Your task to perform on an android device: set the timer Image 0: 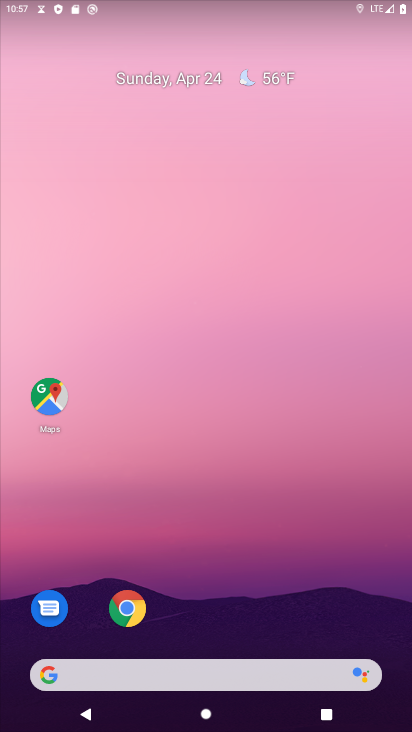
Step 0: drag from (202, 405) to (200, 79)
Your task to perform on an android device: set the timer Image 1: 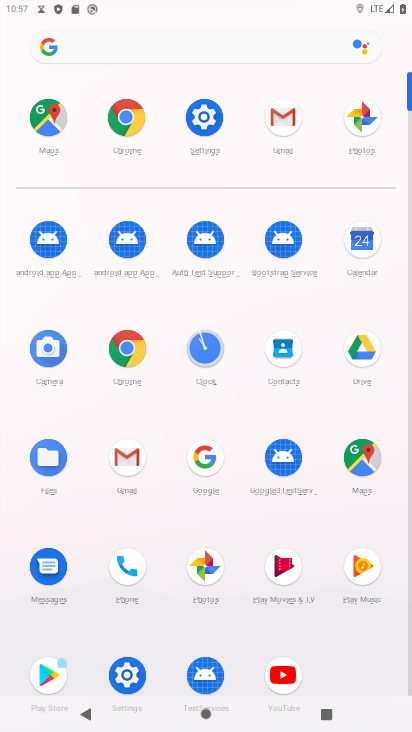
Step 1: click (205, 355)
Your task to perform on an android device: set the timer Image 2: 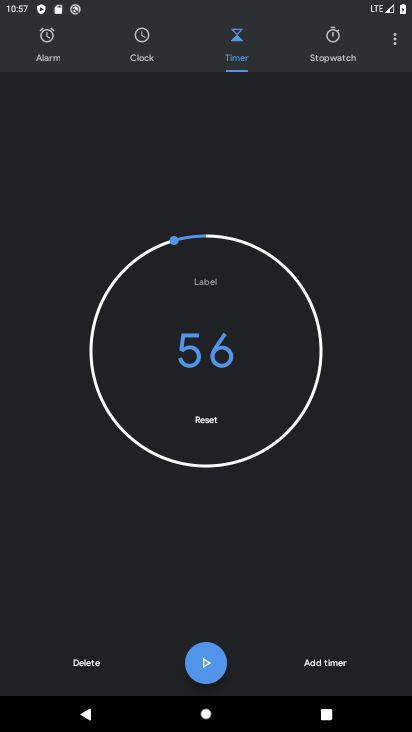
Step 2: click (388, 43)
Your task to perform on an android device: set the timer Image 3: 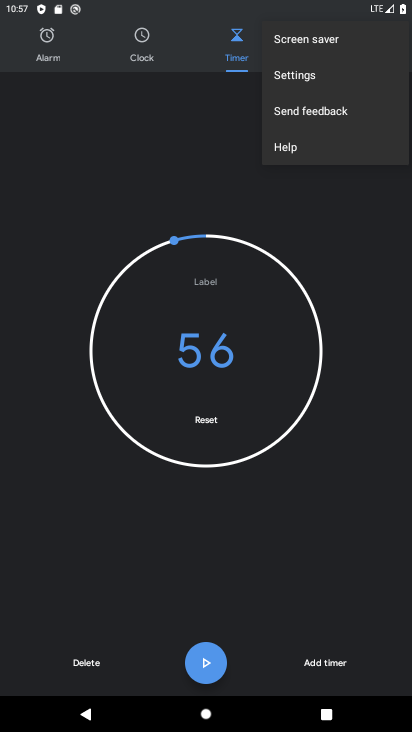
Step 3: click (341, 204)
Your task to perform on an android device: set the timer Image 4: 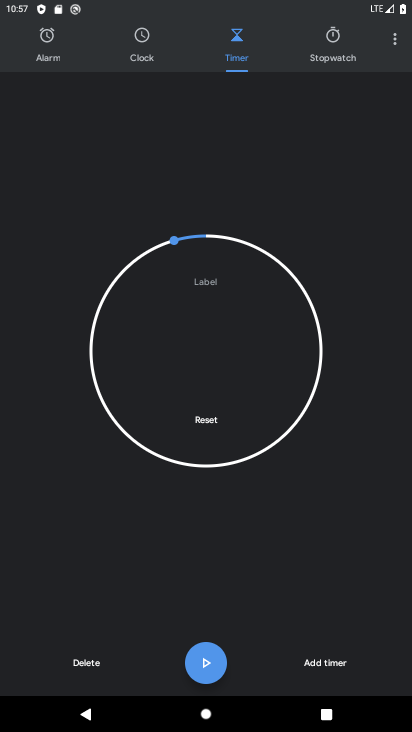
Step 4: click (198, 662)
Your task to perform on an android device: set the timer Image 5: 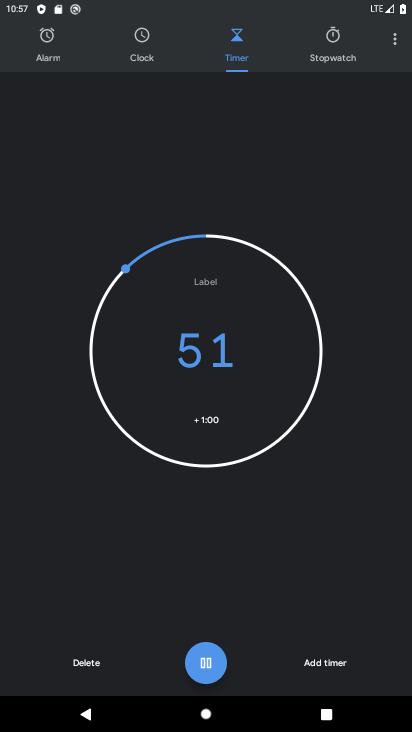
Step 5: task complete